Your task to perform on an android device: empty trash in google photos Image 0: 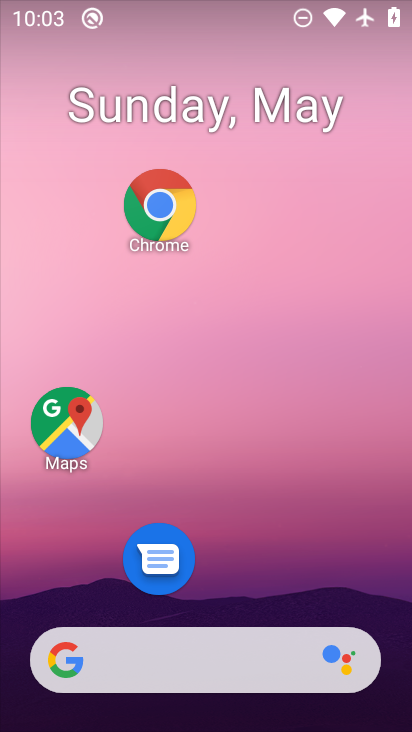
Step 0: press home button
Your task to perform on an android device: empty trash in google photos Image 1: 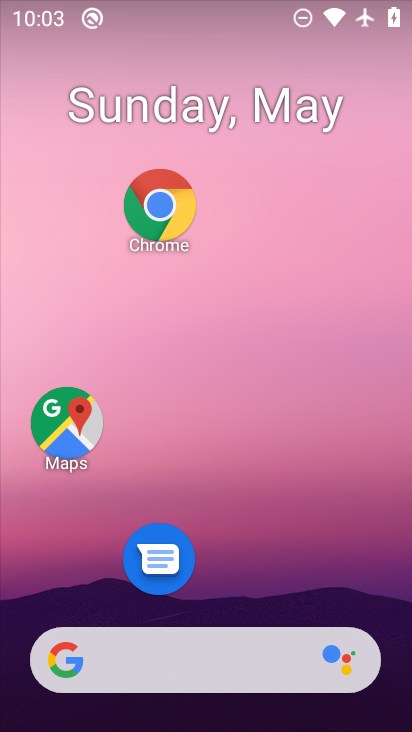
Step 1: drag from (310, 606) to (327, 69)
Your task to perform on an android device: empty trash in google photos Image 2: 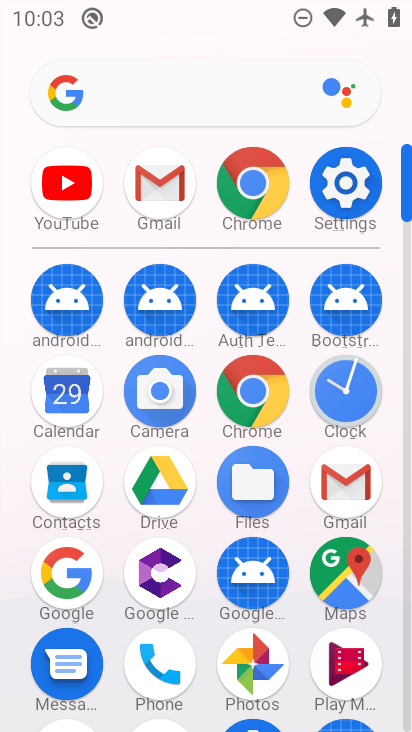
Step 2: click (252, 656)
Your task to perform on an android device: empty trash in google photos Image 3: 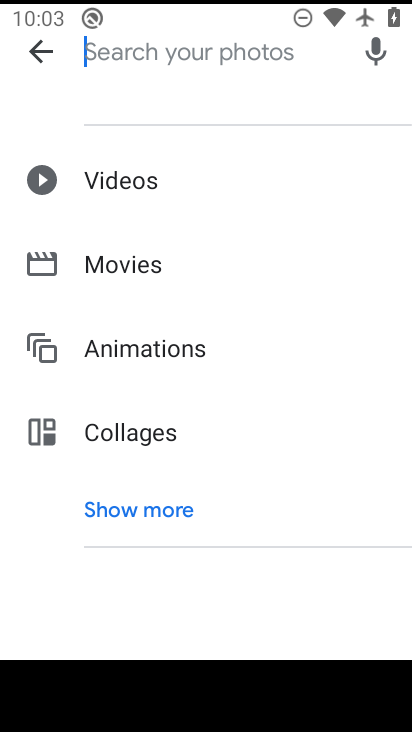
Step 3: click (47, 47)
Your task to perform on an android device: empty trash in google photos Image 4: 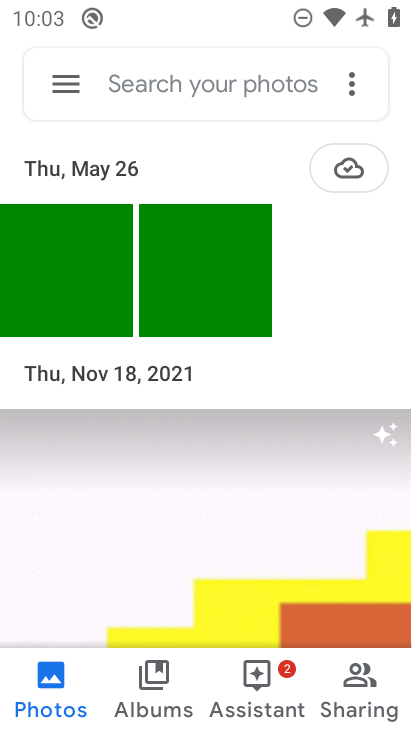
Step 4: click (69, 83)
Your task to perform on an android device: empty trash in google photos Image 5: 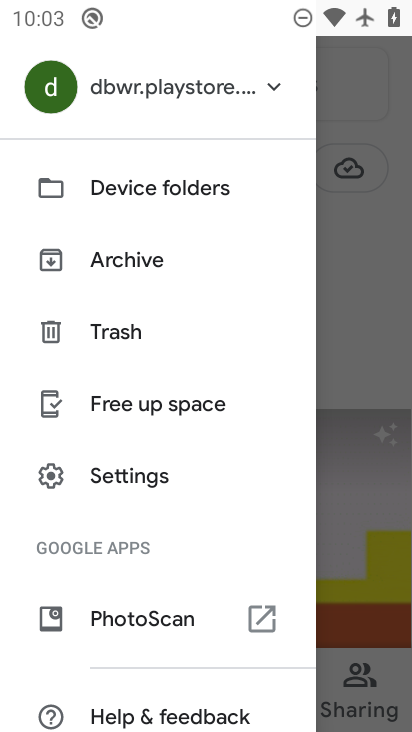
Step 5: click (117, 331)
Your task to perform on an android device: empty trash in google photos Image 6: 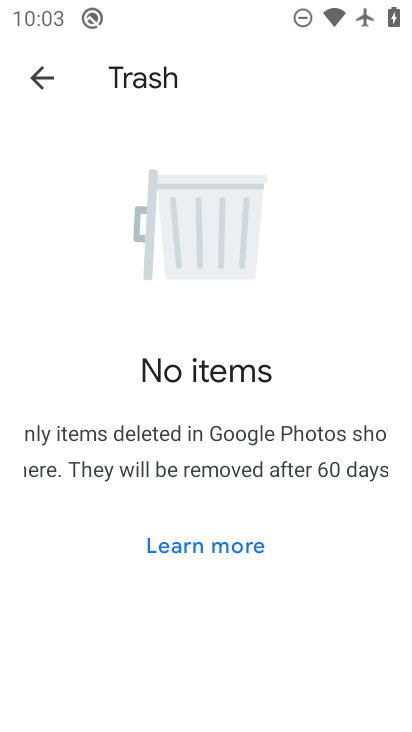
Step 6: task complete